Your task to perform on an android device: Open internet settings Image 0: 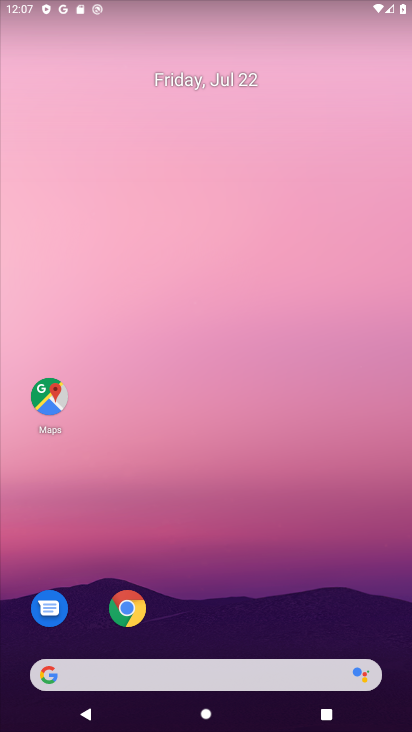
Step 0: drag from (215, 644) to (247, 1)
Your task to perform on an android device: Open internet settings Image 1: 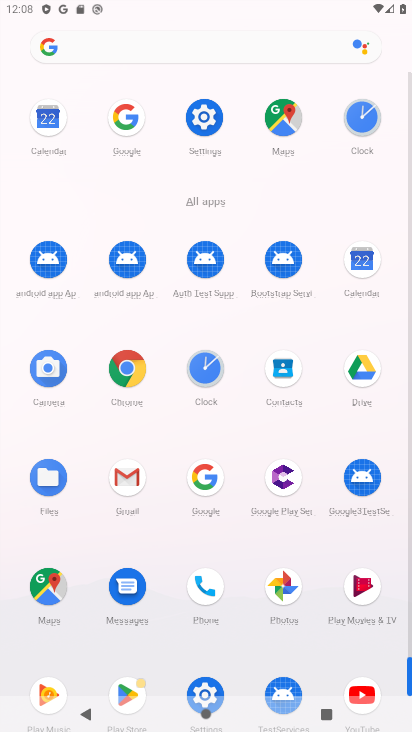
Step 1: click (202, 112)
Your task to perform on an android device: Open internet settings Image 2: 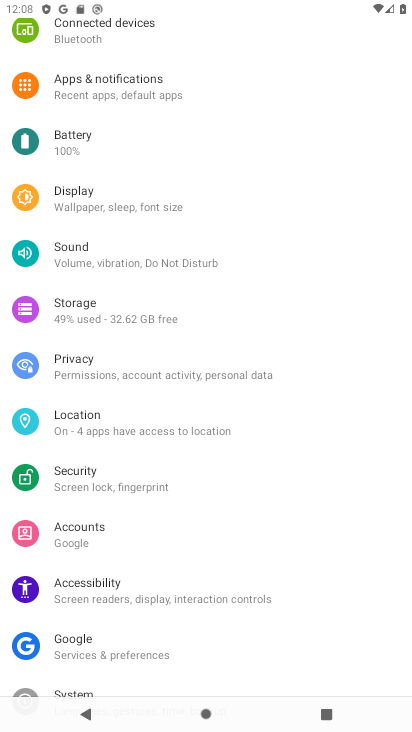
Step 2: drag from (168, 75) to (172, 662)
Your task to perform on an android device: Open internet settings Image 3: 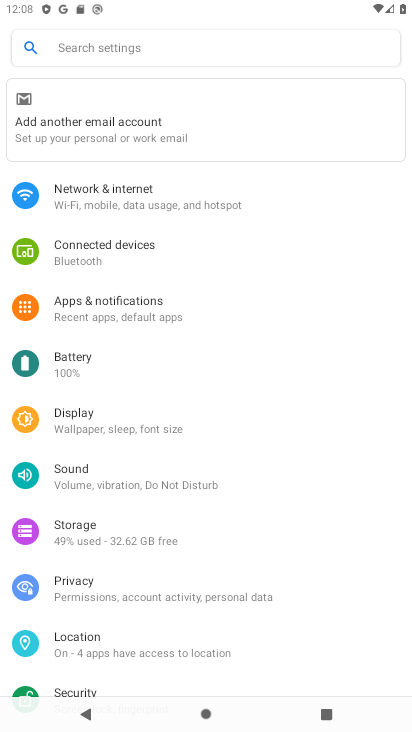
Step 3: drag from (123, 214) to (149, 669)
Your task to perform on an android device: Open internet settings Image 4: 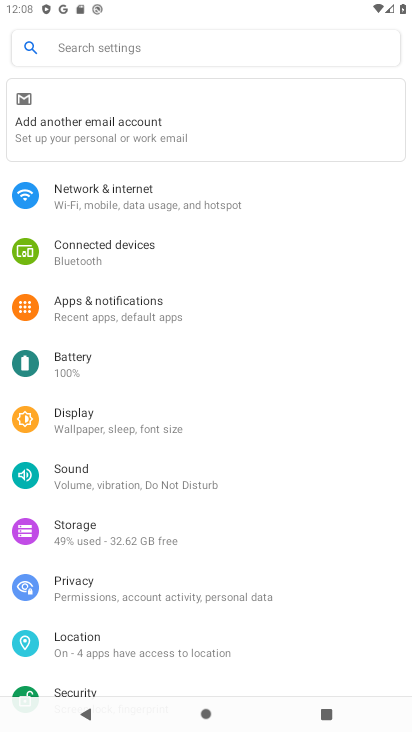
Step 4: drag from (136, 287) to (146, 698)
Your task to perform on an android device: Open internet settings Image 5: 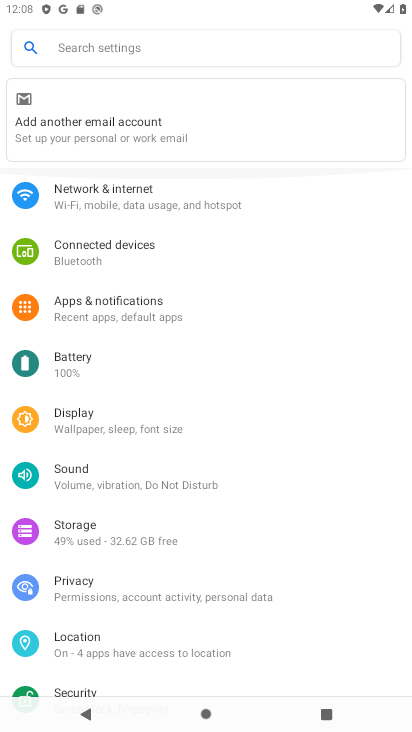
Step 5: click (135, 188)
Your task to perform on an android device: Open internet settings Image 6: 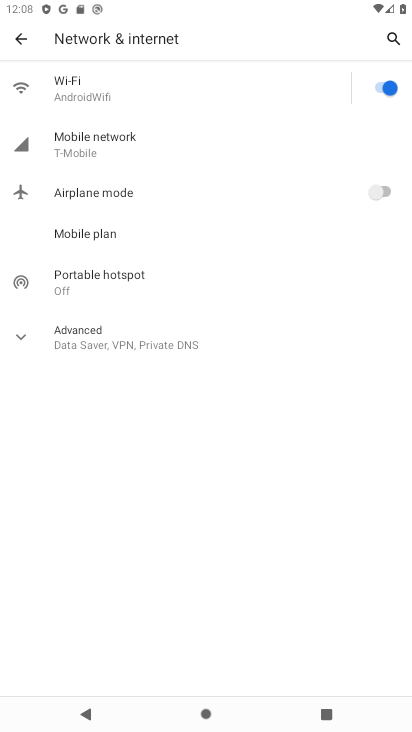
Step 6: click (23, 335)
Your task to perform on an android device: Open internet settings Image 7: 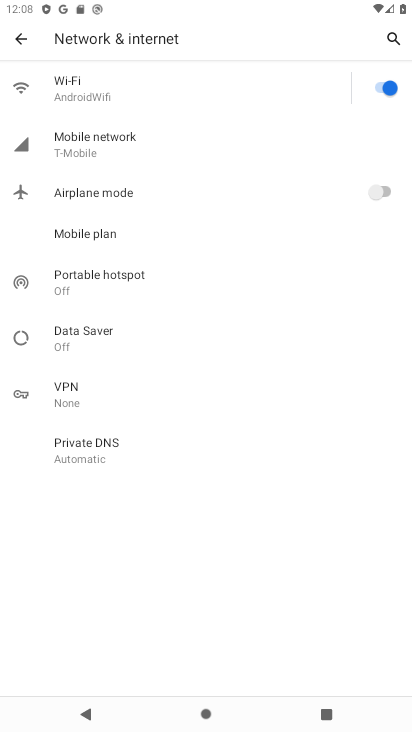
Step 7: task complete